Your task to perform on an android device: delete the emails in spam in the gmail app Image 0: 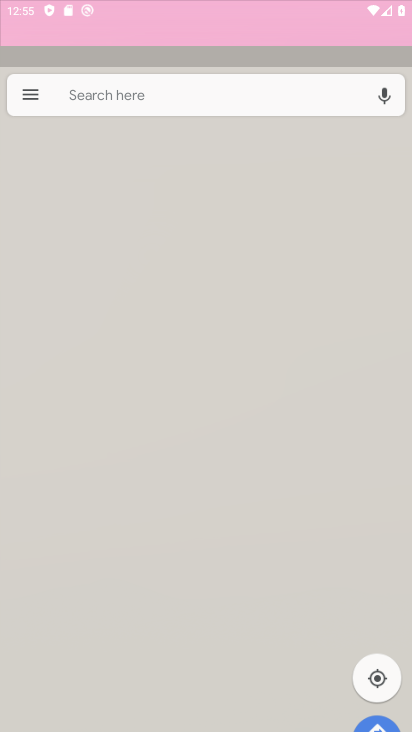
Step 0: drag from (254, 337) to (249, 290)
Your task to perform on an android device: delete the emails in spam in the gmail app Image 1: 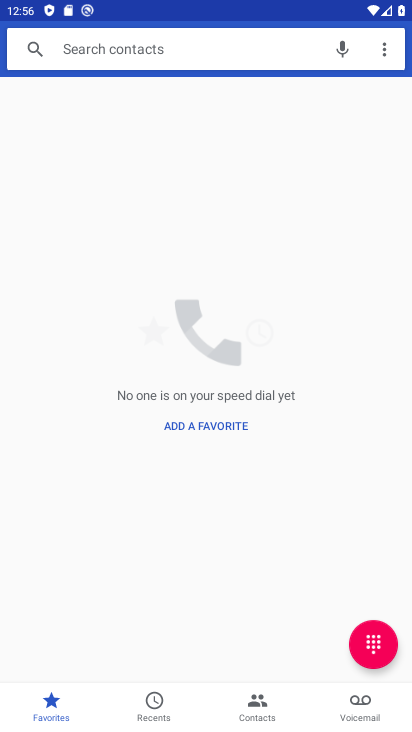
Step 1: press home button
Your task to perform on an android device: delete the emails in spam in the gmail app Image 2: 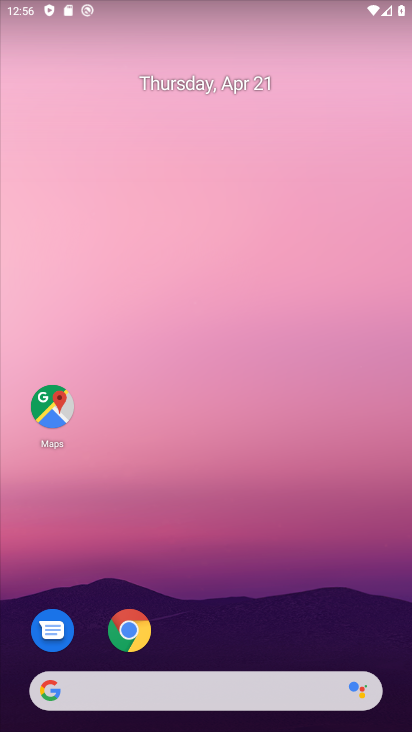
Step 2: drag from (238, 625) to (197, 156)
Your task to perform on an android device: delete the emails in spam in the gmail app Image 3: 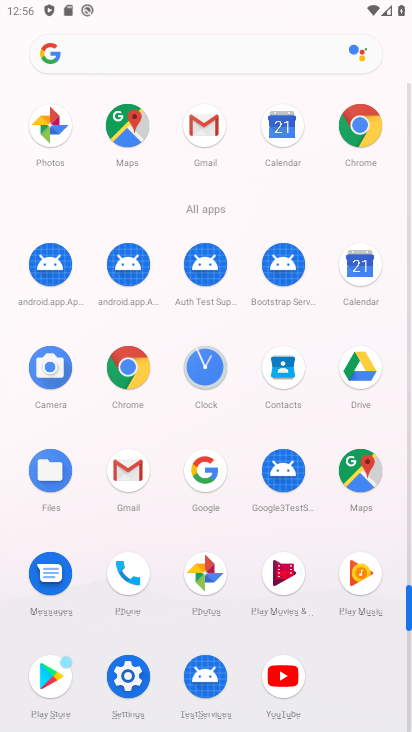
Step 3: click (211, 148)
Your task to perform on an android device: delete the emails in spam in the gmail app Image 4: 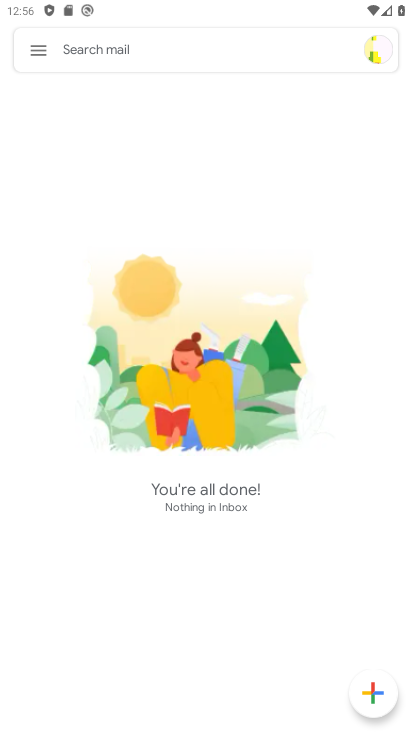
Step 4: click (49, 53)
Your task to perform on an android device: delete the emails in spam in the gmail app Image 5: 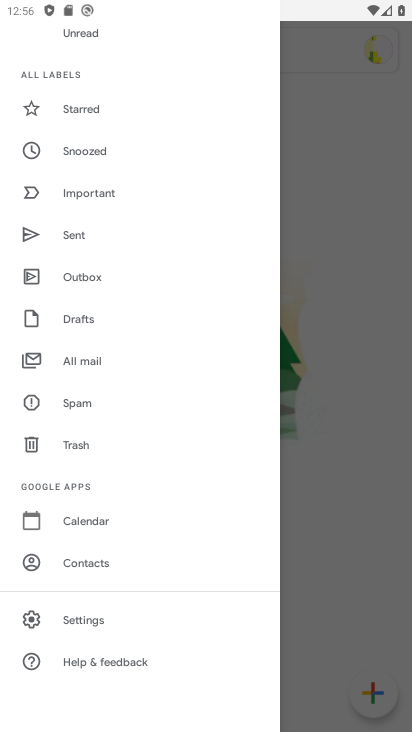
Step 5: click (101, 403)
Your task to perform on an android device: delete the emails in spam in the gmail app Image 6: 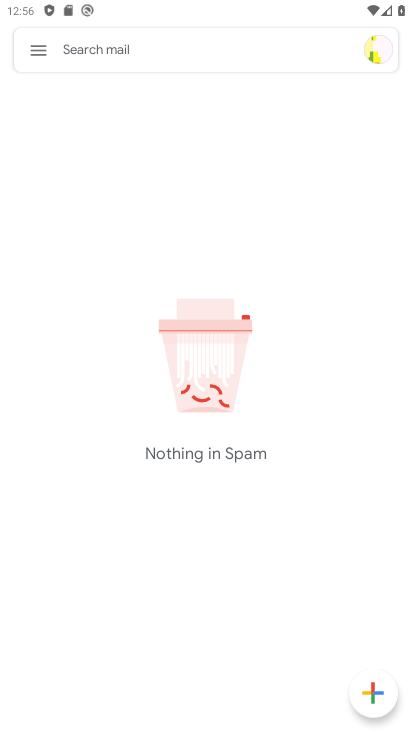
Step 6: task complete